Your task to perform on an android device: see creations saved in the google photos Image 0: 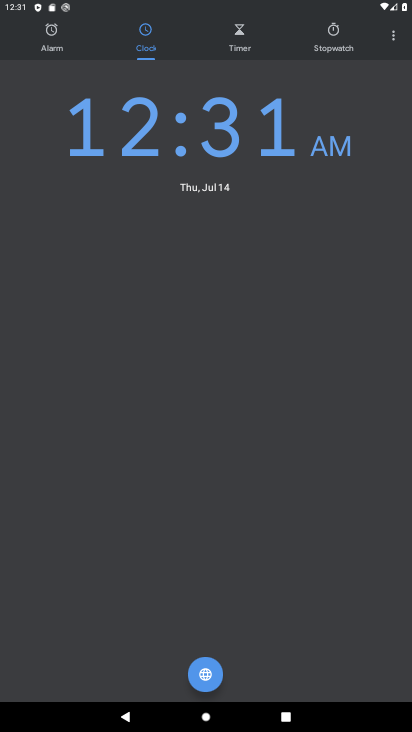
Step 0: press home button
Your task to perform on an android device: see creations saved in the google photos Image 1: 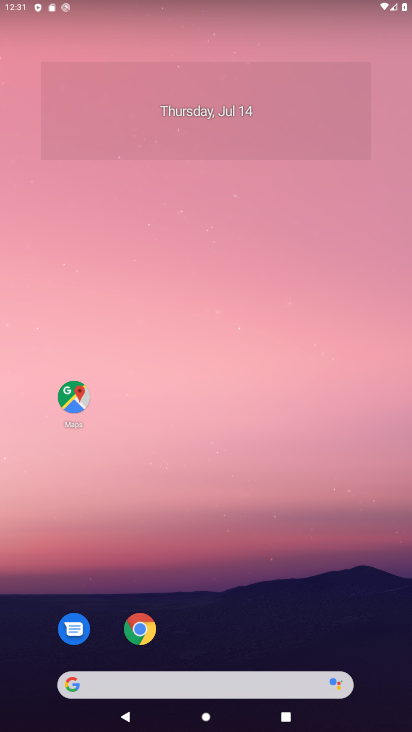
Step 1: drag from (216, 634) to (214, 101)
Your task to perform on an android device: see creations saved in the google photos Image 2: 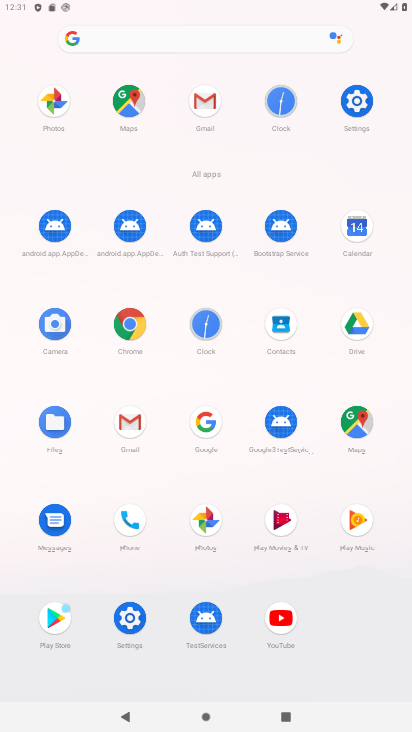
Step 2: click (201, 519)
Your task to perform on an android device: see creations saved in the google photos Image 3: 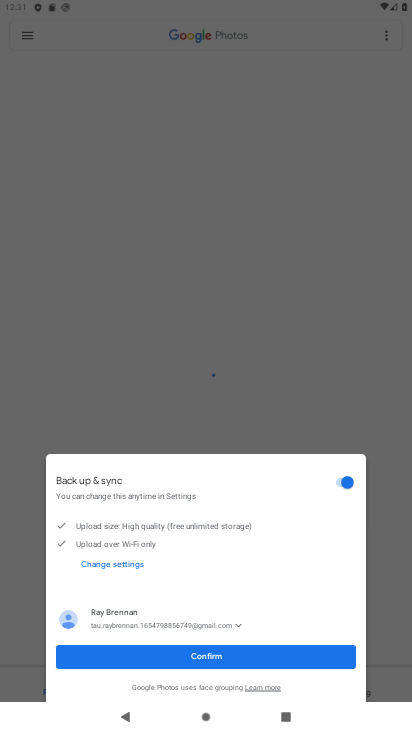
Step 3: click (213, 656)
Your task to perform on an android device: see creations saved in the google photos Image 4: 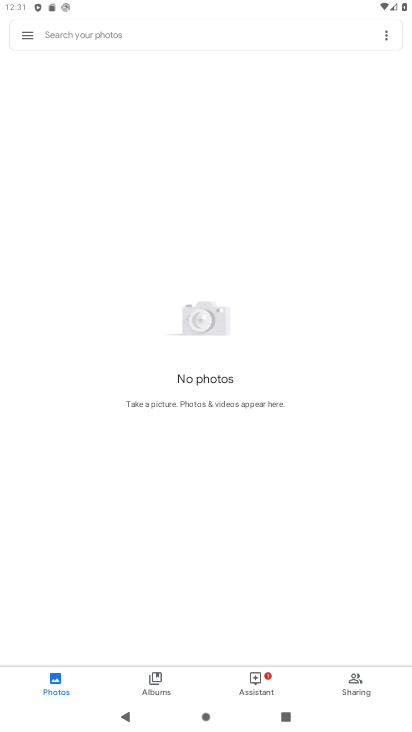
Step 4: click (132, 28)
Your task to perform on an android device: see creations saved in the google photos Image 5: 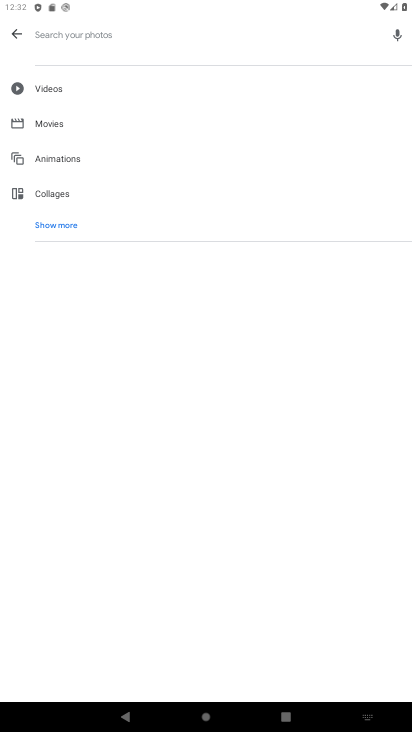
Step 5: click (65, 229)
Your task to perform on an android device: see creations saved in the google photos Image 6: 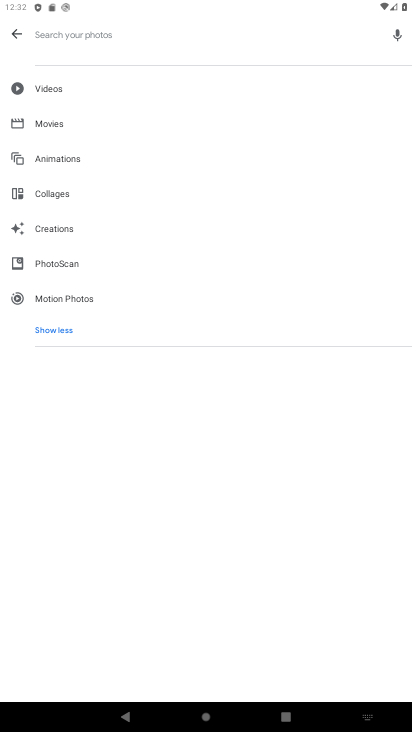
Step 6: click (55, 228)
Your task to perform on an android device: see creations saved in the google photos Image 7: 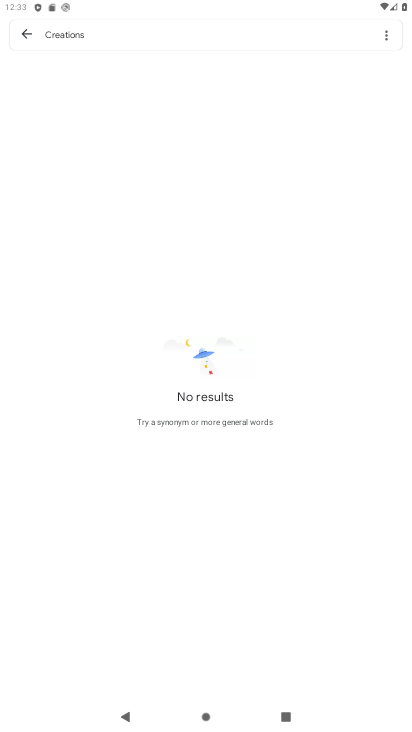
Step 7: task complete